Your task to perform on an android device: move a message to another label in the gmail app Image 0: 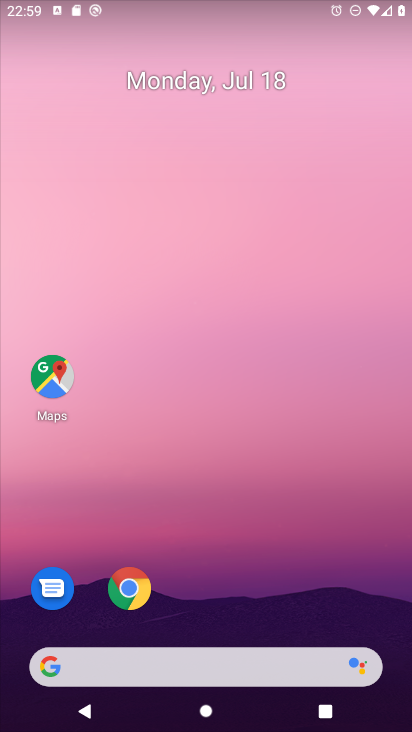
Step 0: drag from (386, 629) to (309, 131)
Your task to perform on an android device: move a message to another label in the gmail app Image 1: 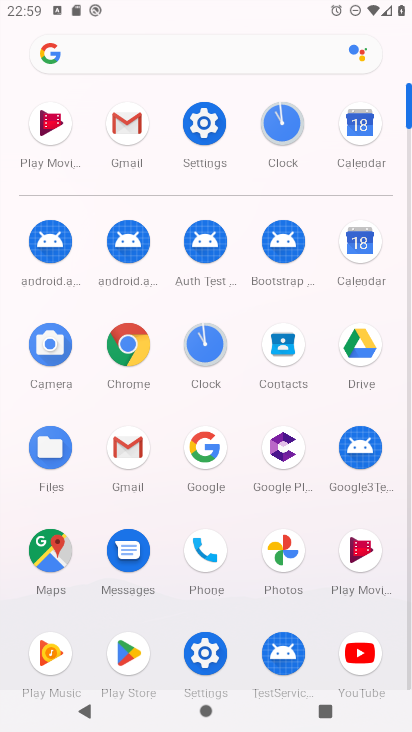
Step 1: click (128, 447)
Your task to perform on an android device: move a message to another label in the gmail app Image 2: 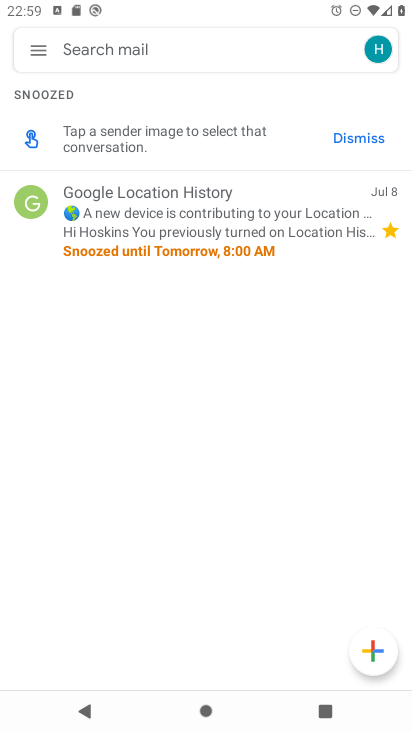
Step 2: click (282, 217)
Your task to perform on an android device: move a message to another label in the gmail app Image 3: 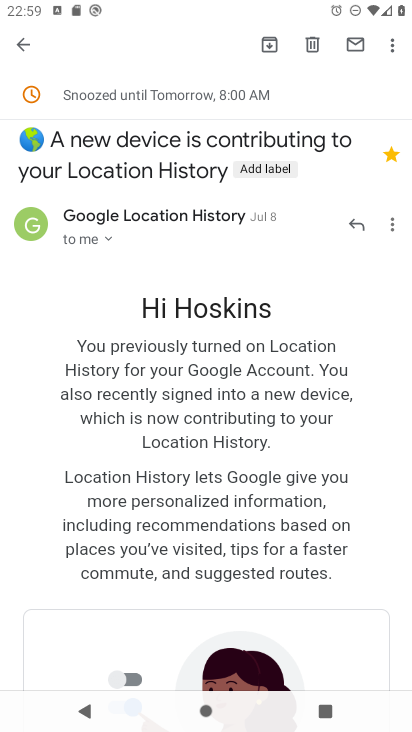
Step 3: click (391, 50)
Your task to perform on an android device: move a message to another label in the gmail app Image 4: 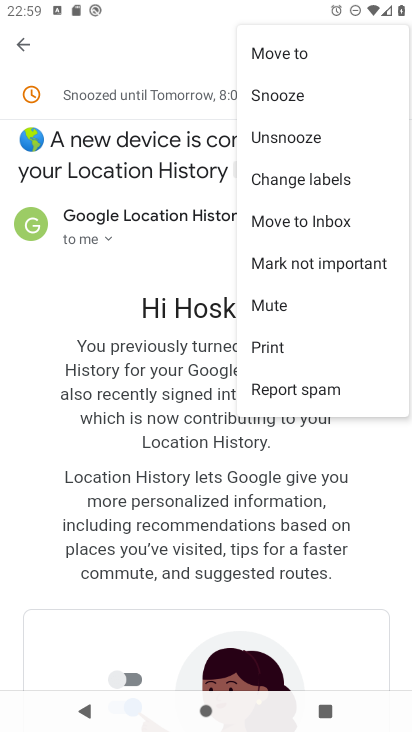
Step 4: click (283, 56)
Your task to perform on an android device: move a message to another label in the gmail app Image 5: 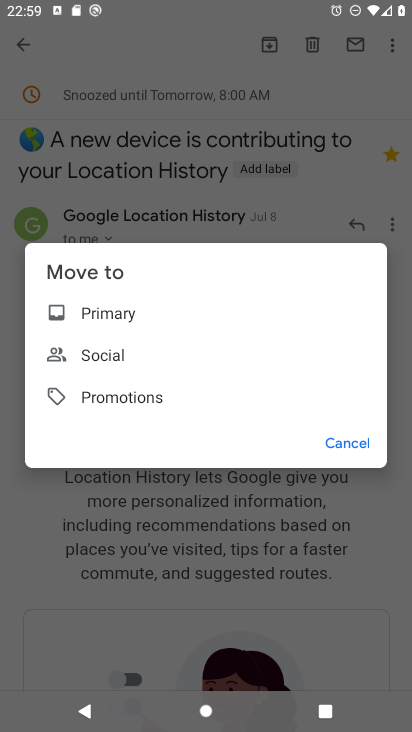
Step 5: click (91, 311)
Your task to perform on an android device: move a message to another label in the gmail app Image 6: 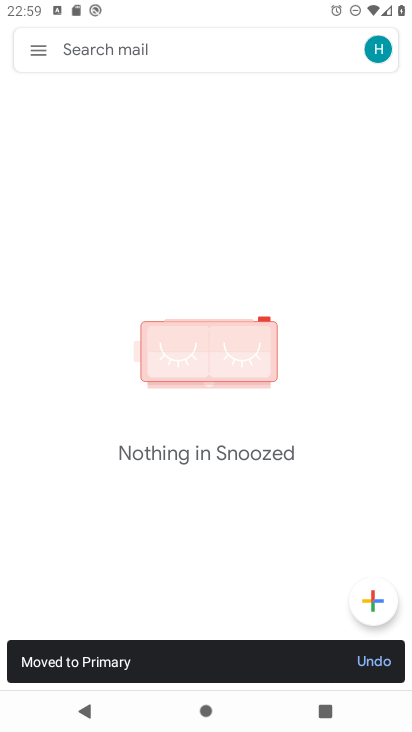
Step 6: task complete